Your task to perform on an android device: find which apps use the phone's location Image 0: 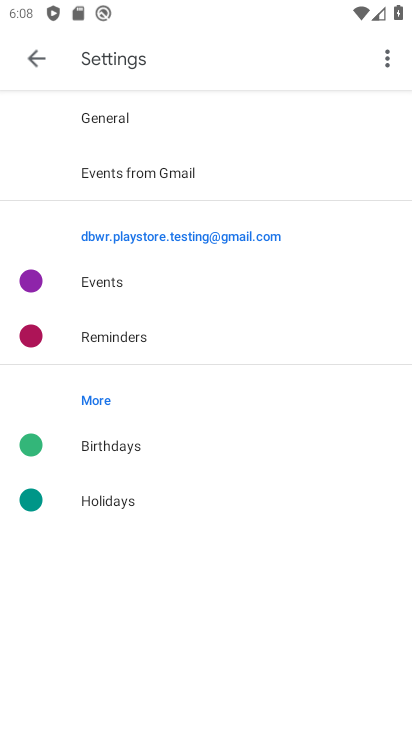
Step 0: press home button
Your task to perform on an android device: find which apps use the phone's location Image 1: 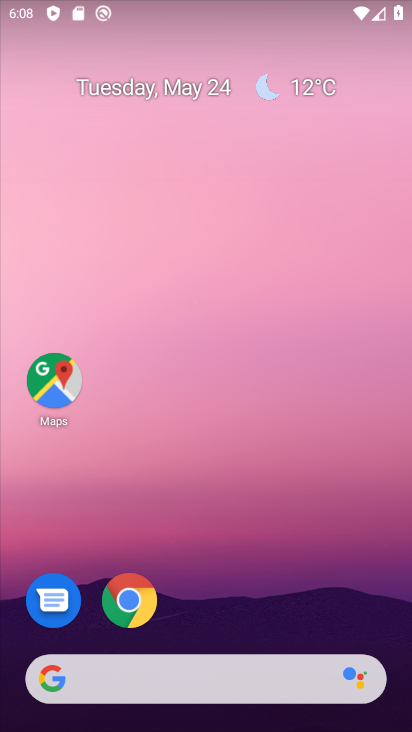
Step 1: drag from (337, 584) to (409, 213)
Your task to perform on an android device: find which apps use the phone's location Image 2: 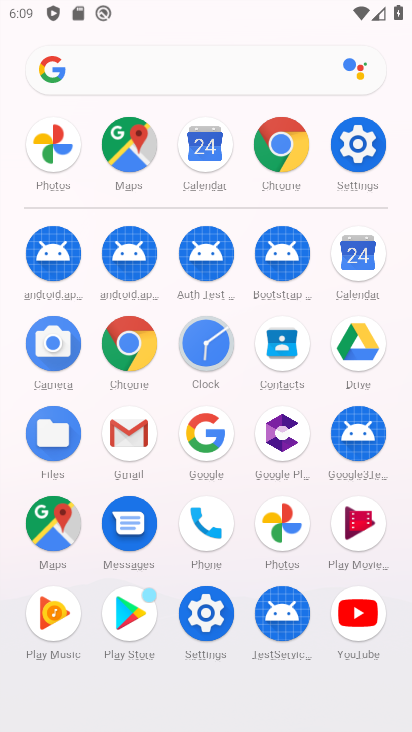
Step 2: click (343, 145)
Your task to perform on an android device: find which apps use the phone's location Image 3: 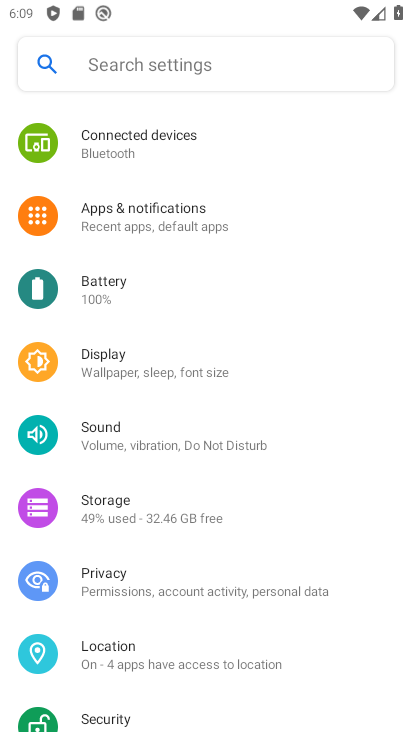
Step 3: click (155, 663)
Your task to perform on an android device: find which apps use the phone's location Image 4: 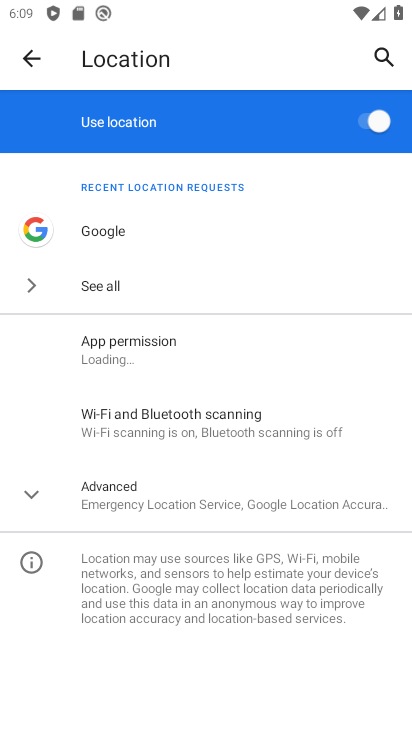
Step 4: drag from (235, 671) to (243, 220)
Your task to perform on an android device: find which apps use the phone's location Image 5: 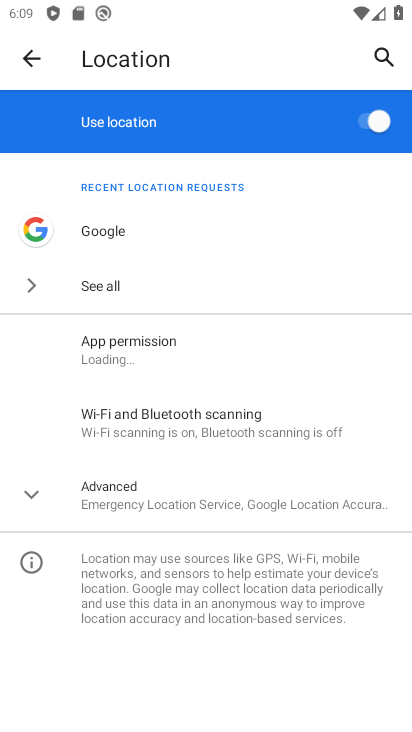
Step 5: click (245, 503)
Your task to perform on an android device: find which apps use the phone's location Image 6: 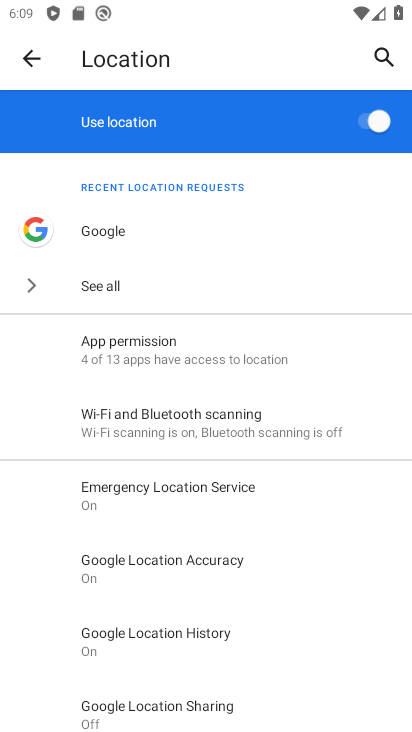
Step 6: click (139, 343)
Your task to perform on an android device: find which apps use the phone's location Image 7: 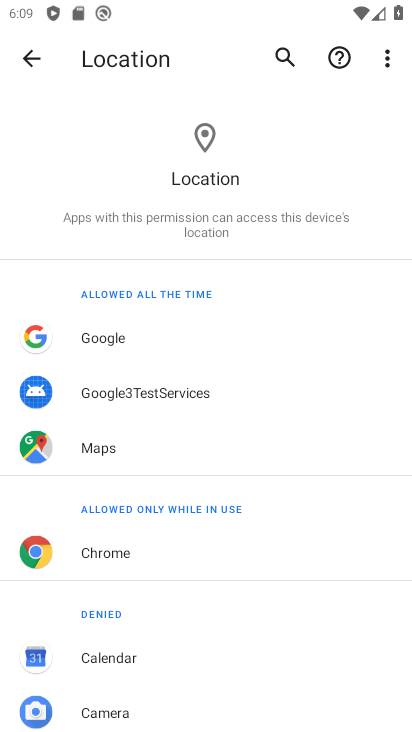
Step 7: task complete